Your task to perform on an android device: check storage Image 0: 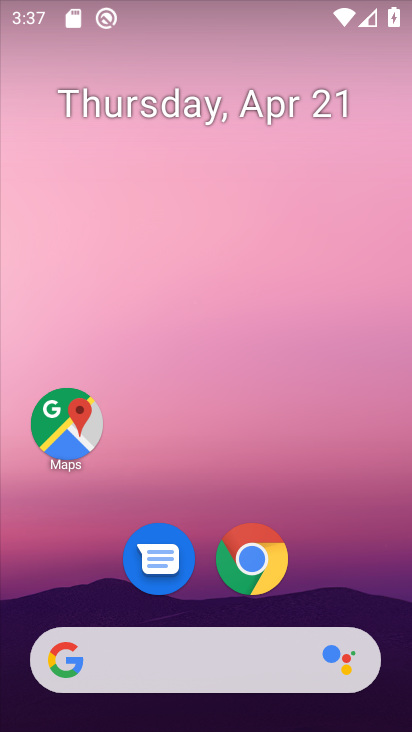
Step 0: drag from (185, 622) to (265, 108)
Your task to perform on an android device: check storage Image 1: 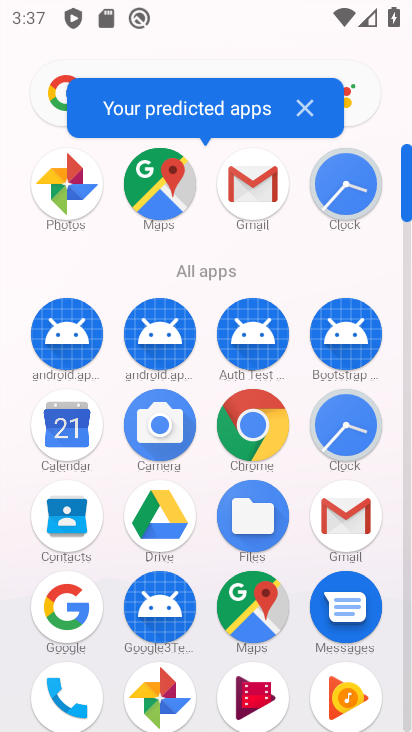
Step 1: drag from (229, 354) to (234, 222)
Your task to perform on an android device: check storage Image 2: 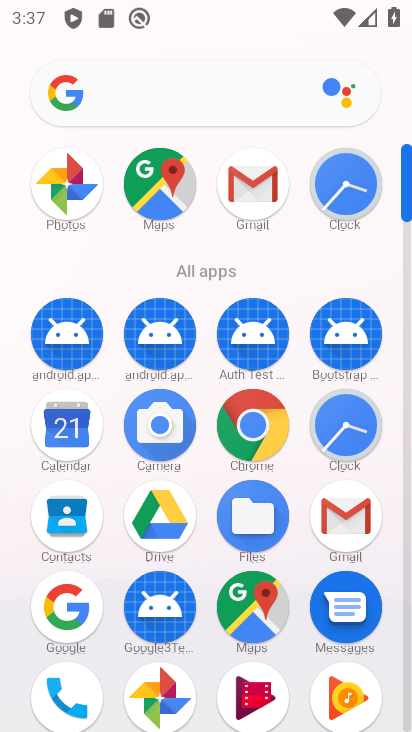
Step 2: drag from (106, 636) to (166, 205)
Your task to perform on an android device: check storage Image 3: 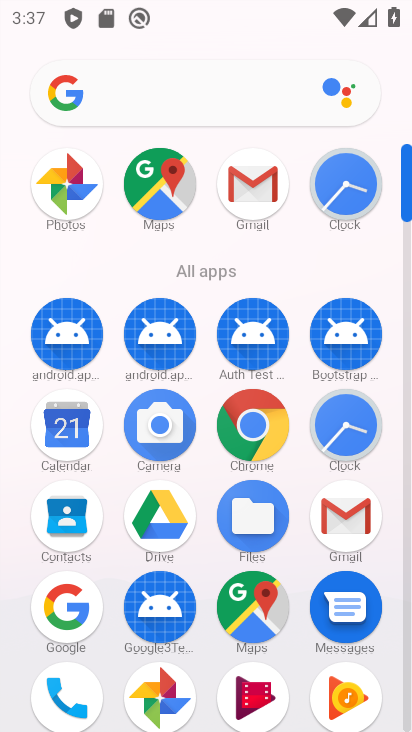
Step 3: drag from (223, 590) to (289, 121)
Your task to perform on an android device: check storage Image 4: 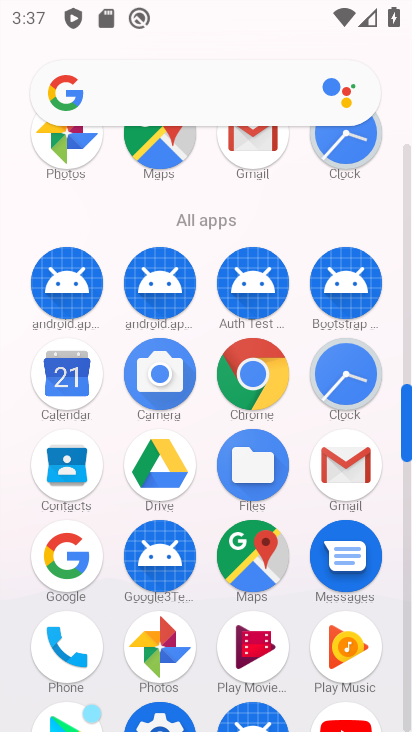
Step 4: drag from (205, 617) to (250, 313)
Your task to perform on an android device: check storage Image 5: 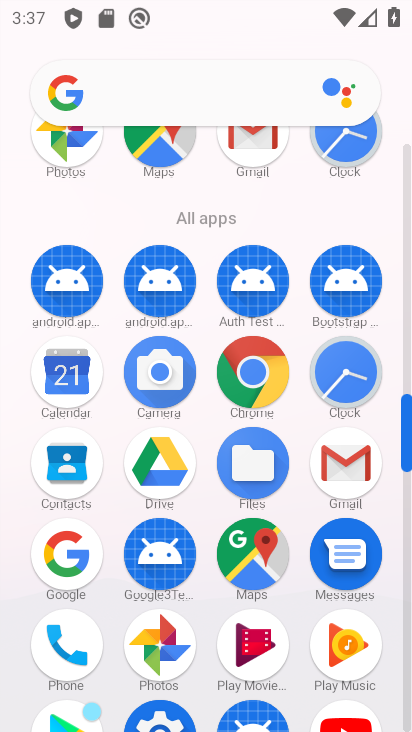
Step 5: click (153, 724)
Your task to perform on an android device: check storage Image 6: 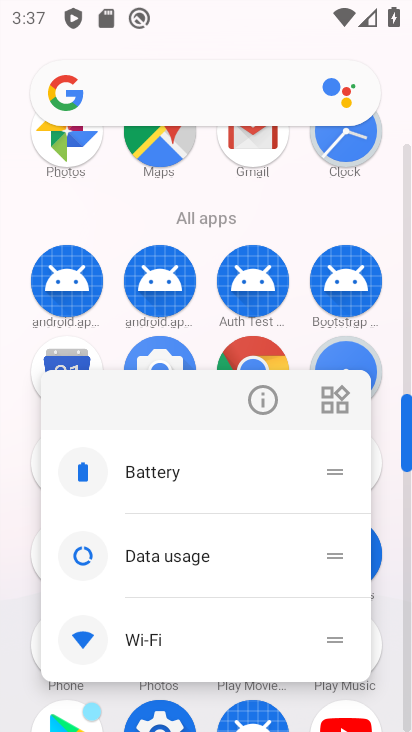
Step 6: click (153, 724)
Your task to perform on an android device: check storage Image 7: 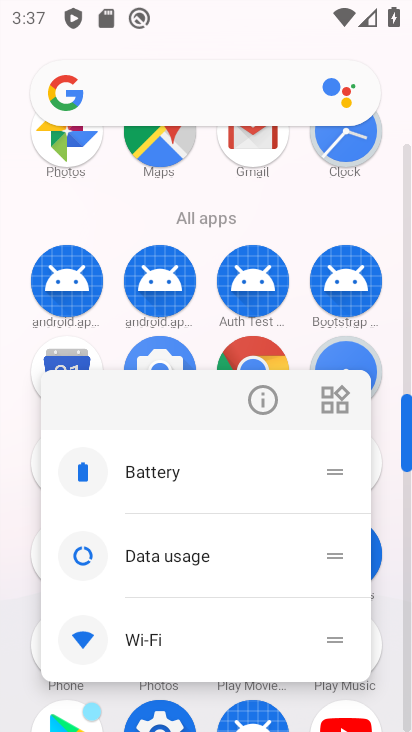
Step 7: click (153, 724)
Your task to perform on an android device: check storage Image 8: 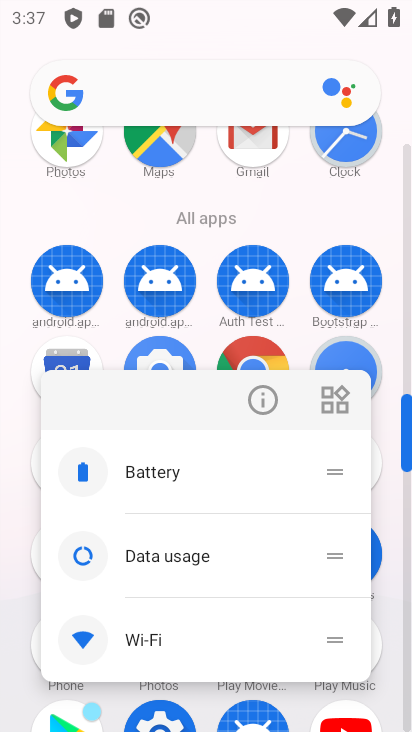
Step 8: click (153, 724)
Your task to perform on an android device: check storage Image 9: 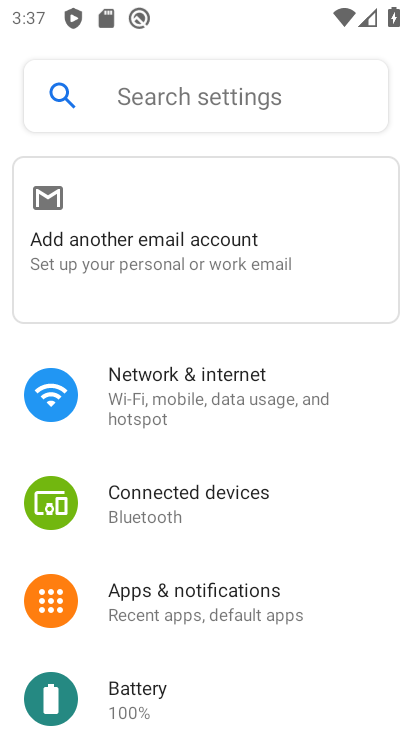
Step 9: drag from (181, 712) to (240, 169)
Your task to perform on an android device: check storage Image 10: 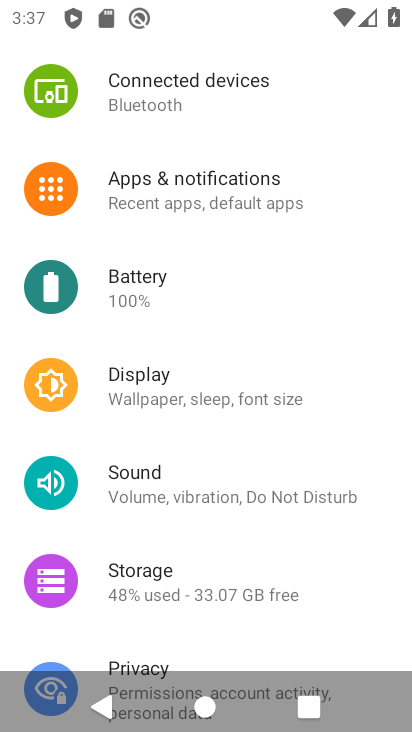
Step 10: click (164, 589)
Your task to perform on an android device: check storage Image 11: 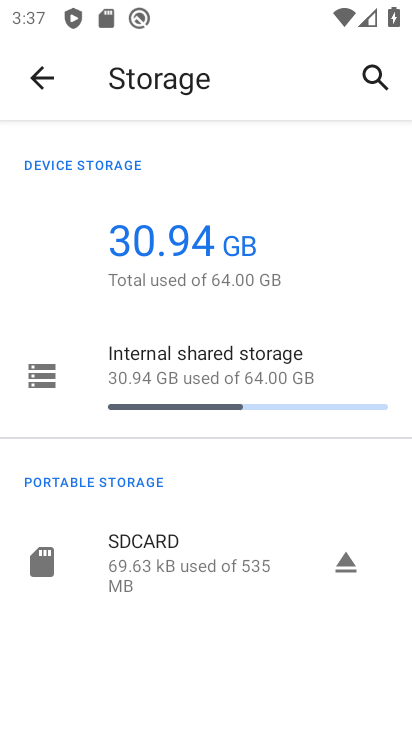
Step 11: task complete